Your task to perform on an android device: allow notifications from all sites in the chrome app Image 0: 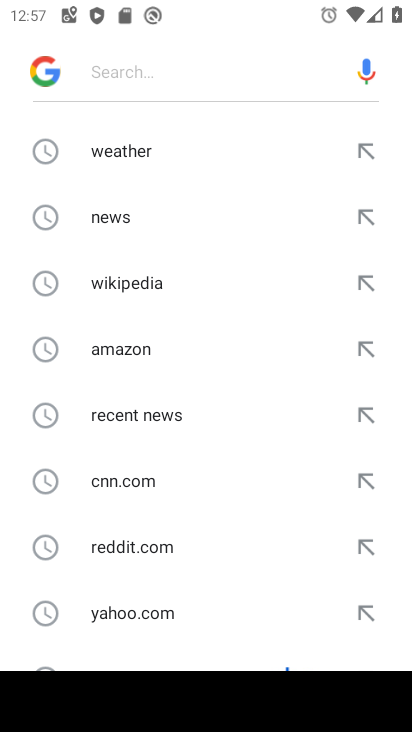
Step 0: press home button
Your task to perform on an android device: allow notifications from all sites in the chrome app Image 1: 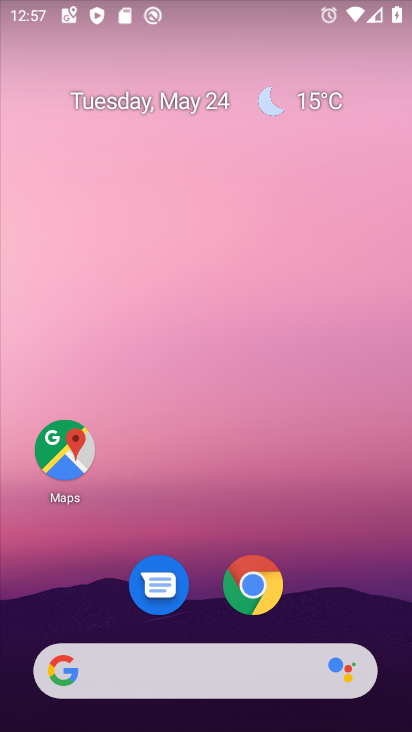
Step 1: click (265, 589)
Your task to perform on an android device: allow notifications from all sites in the chrome app Image 2: 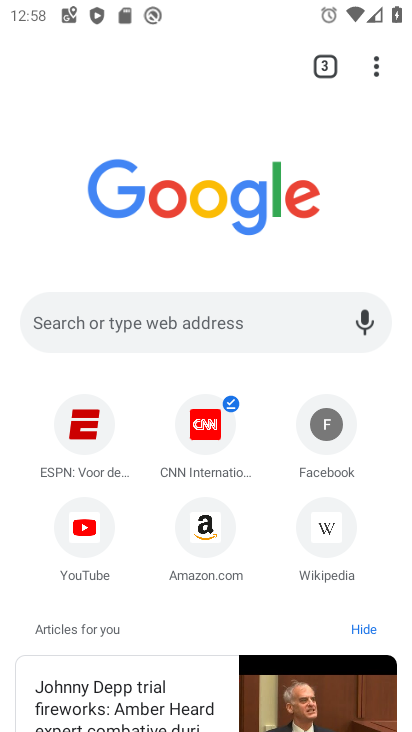
Step 2: click (374, 62)
Your task to perform on an android device: allow notifications from all sites in the chrome app Image 3: 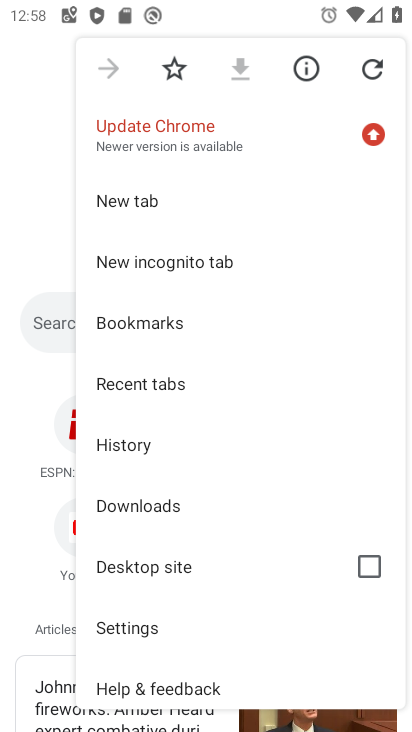
Step 3: click (191, 623)
Your task to perform on an android device: allow notifications from all sites in the chrome app Image 4: 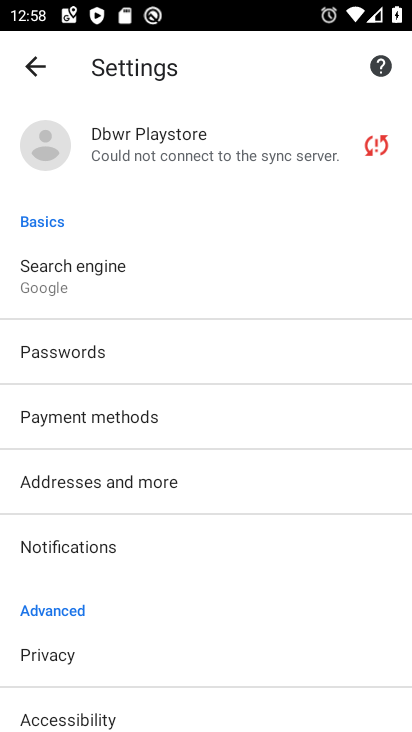
Step 4: click (222, 542)
Your task to perform on an android device: allow notifications from all sites in the chrome app Image 5: 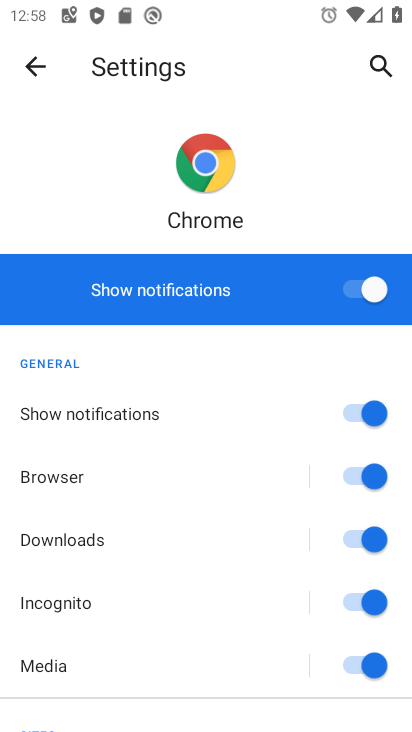
Step 5: task complete